Your task to perform on an android device: Search for sushi restaurants on Maps Image 0: 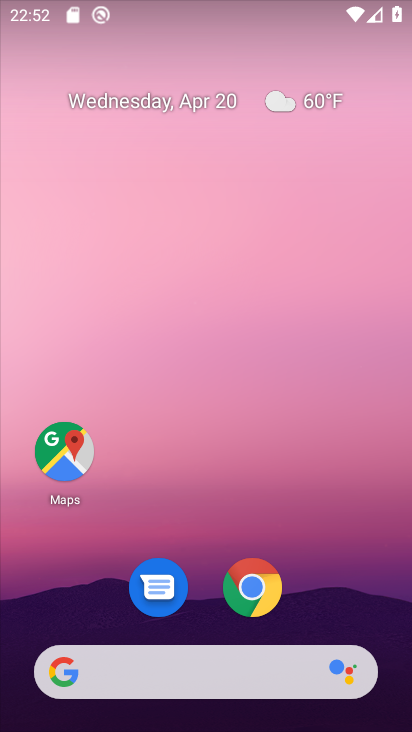
Step 0: click (63, 448)
Your task to perform on an android device: Search for sushi restaurants on Maps Image 1: 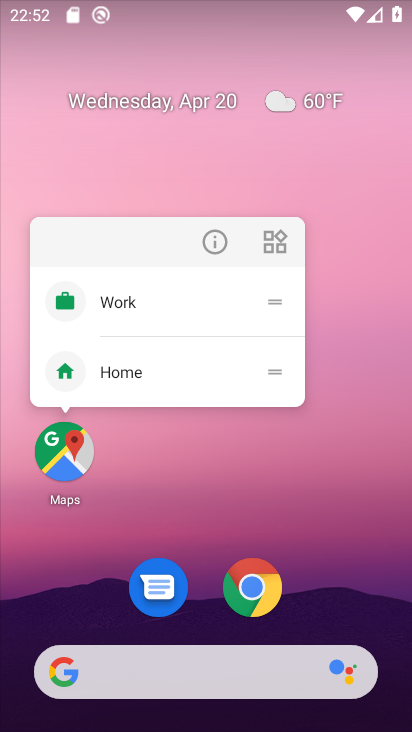
Step 1: click (162, 460)
Your task to perform on an android device: Search for sushi restaurants on Maps Image 2: 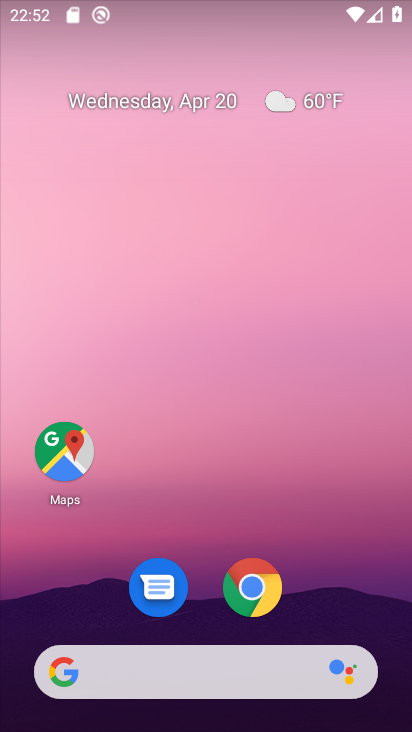
Step 2: click (316, 322)
Your task to perform on an android device: Search for sushi restaurants on Maps Image 3: 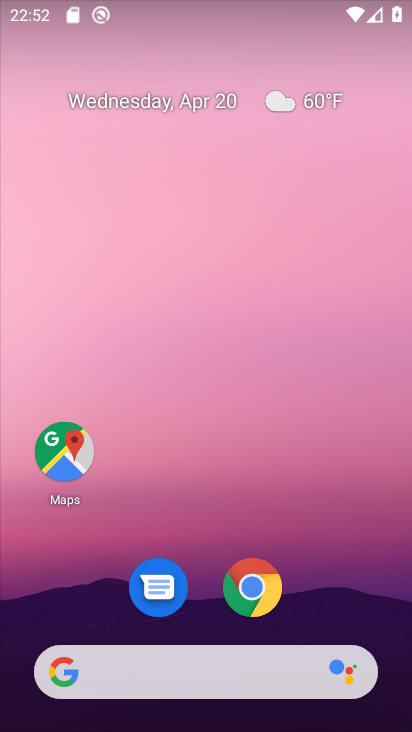
Step 3: click (63, 444)
Your task to perform on an android device: Search for sushi restaurants on Maps Image 4: 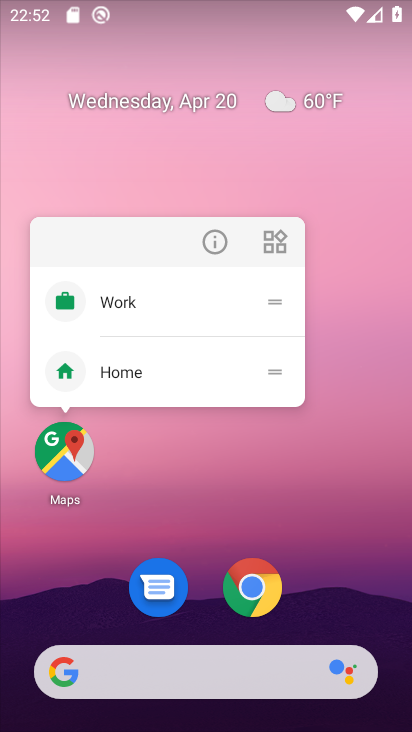
Step 4: click (62, 445)
Your task to perform on an android device: Search for sushi restaurants on Maps Image 5: 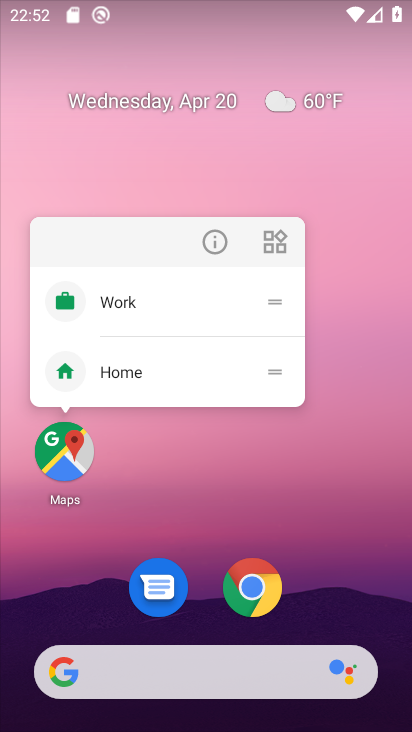
Step 5: click (62, 445)
Your task to perform on an android device: Search for sushi restaurants on Maps Image 6: 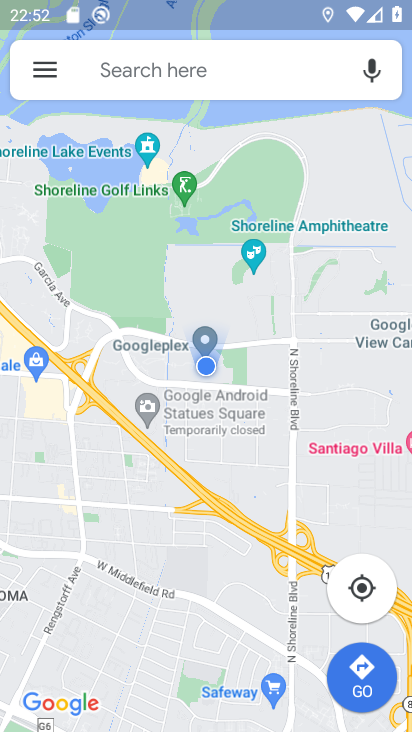
Step 6: click (158, 67)
Your task to perform on an android device: Search for sushi restaurants on Maps Image 7: 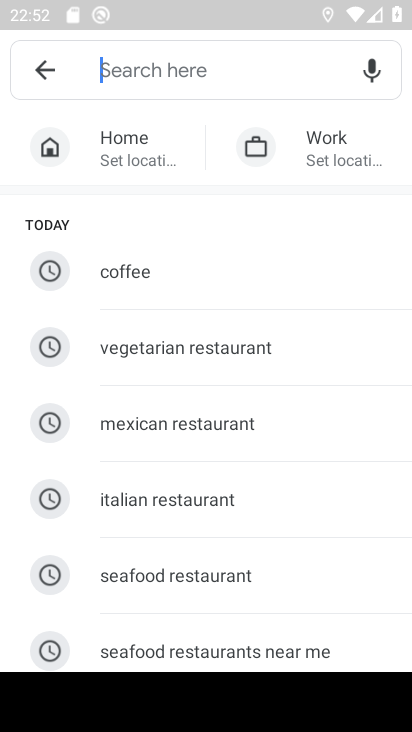
Step 7: drag from (180, 609) to (211, 255)
Your task to perform on an android device: Search for sushi restaurants on Maps Image 8: 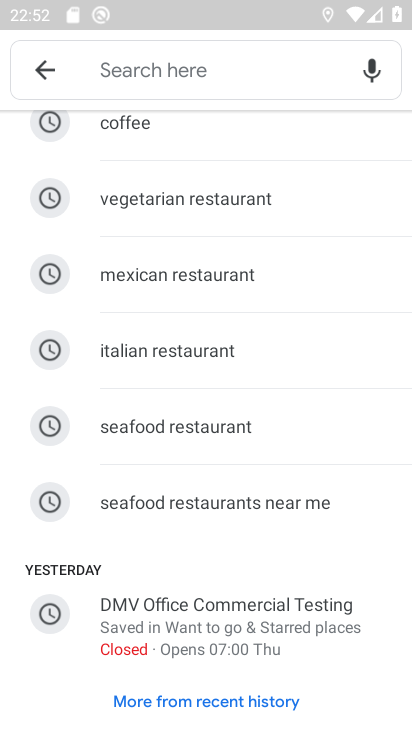
Step 8: drag from (203, 295) to (226, 602)
Your task to perform on an android device: Search for sushi restaurants on Maps Image 9: 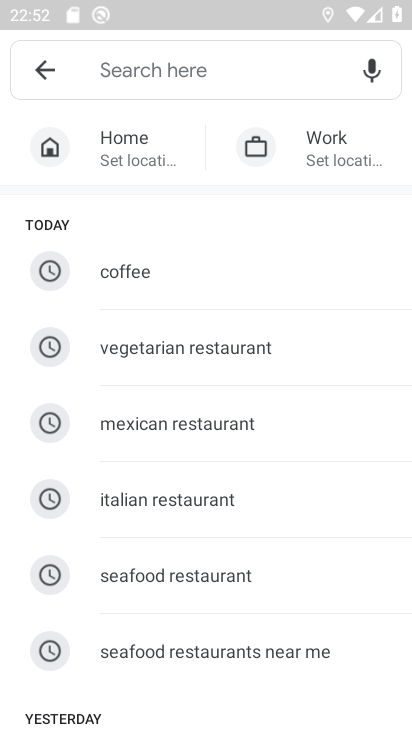
Step 9: click (155, 63)
Your task to perform on an android device: Search for sushi restaurants on Maps Image 10: 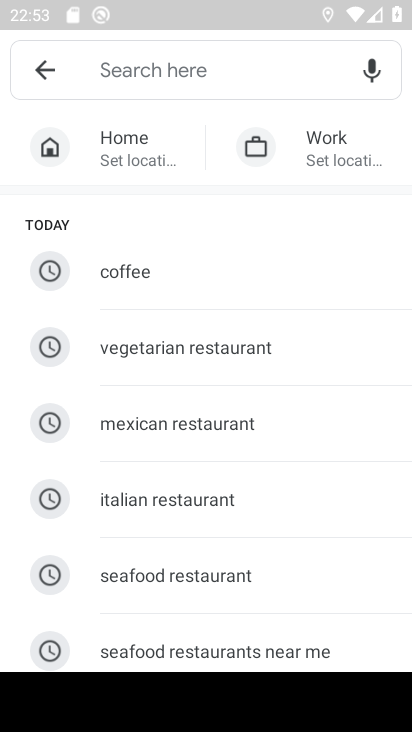
Step 10: type "sushi"
Your task to perform on an android device: Search for sushi restaurants on Maps Image 11: 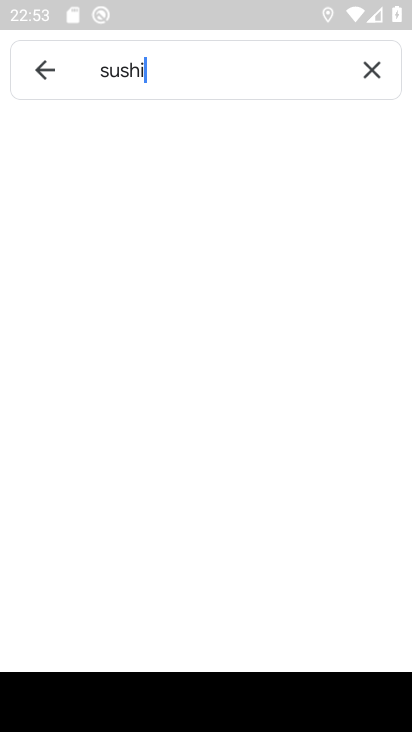
Step 11: type ""
Your task to perform on an android device: Search for sushi restaurants on Maps Image 12: 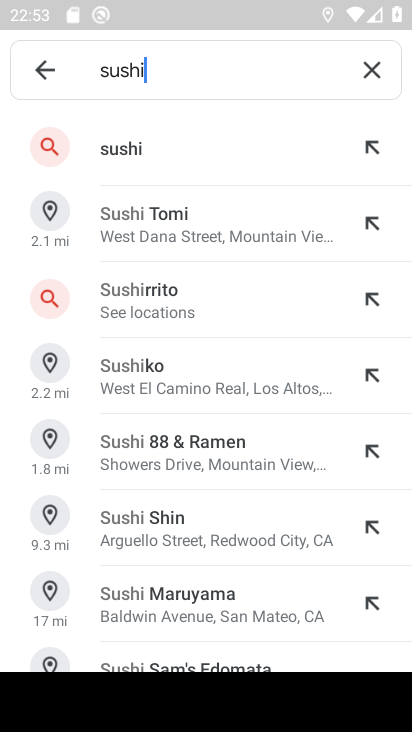
Step 12: click (171, 146)
Your task to perform on an android device: Search for sushi restaurants on Maps Image 13: 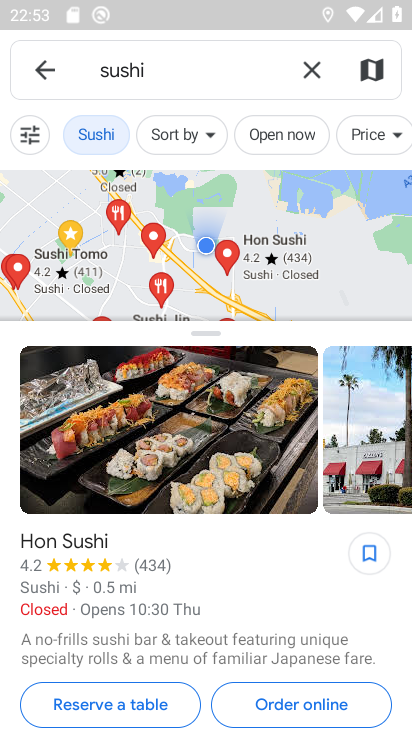
Step 13: task complete